Your task to perform on an android device: Play the last video I watched on Youtube Image 0: 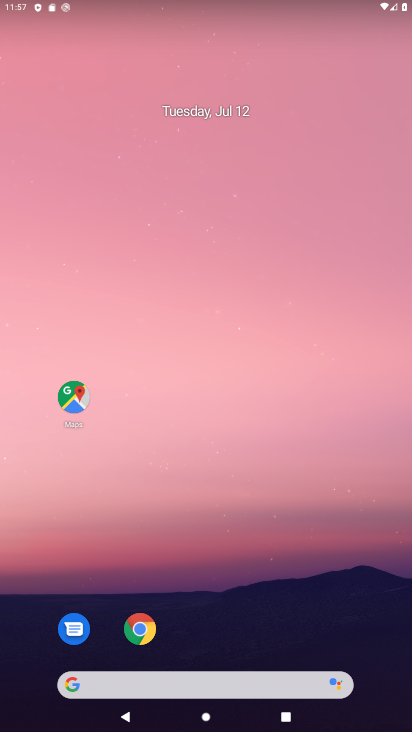
Step 0: drag from (231, 625) to (238, 174)
Your task to perform on an android device: Play the last video I watched on Youtube Image 1: 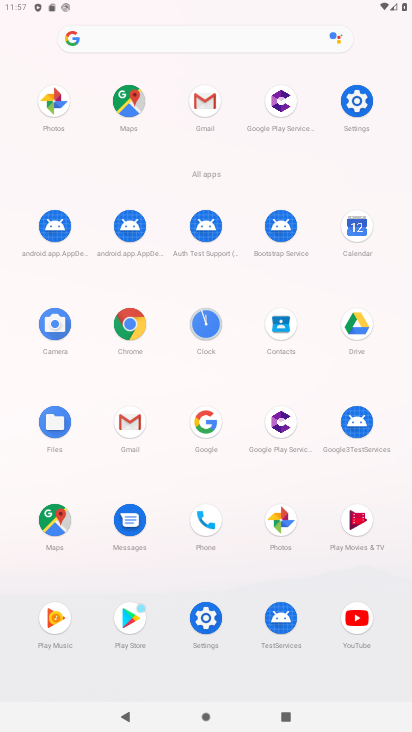
Step 1: click (361, 615)
Your task to perform on an android device: Play the last video I watched on Youtube Image 2: 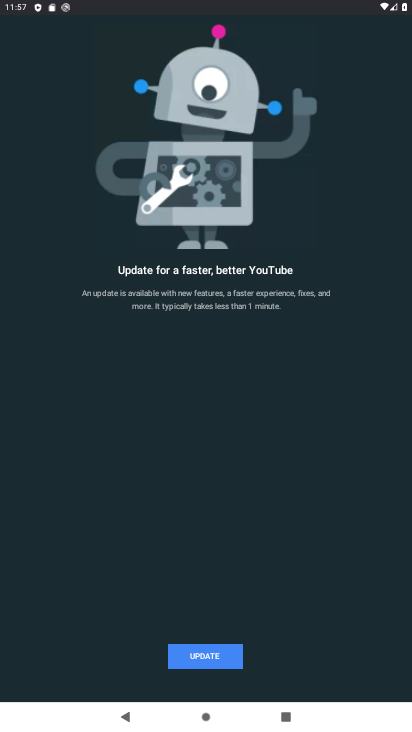
Step 2: click (207, 653)
Your task to perform on an android device: Play the last video I watched on Youtube Image 3: 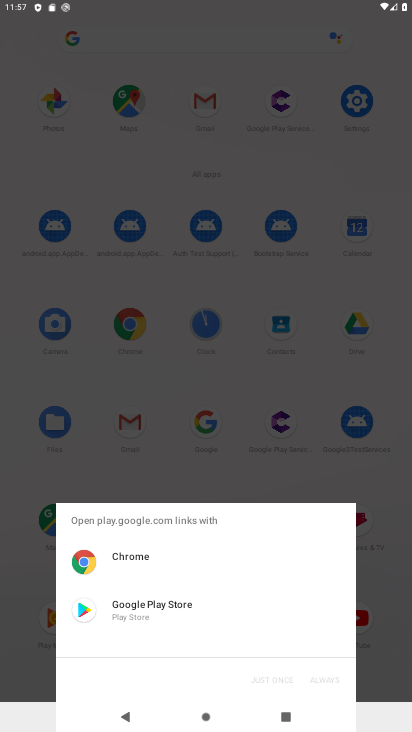
Step 3: click (187, 620)
Your task to perform on an android device: Play the last video I watched on Youtube Image 4: 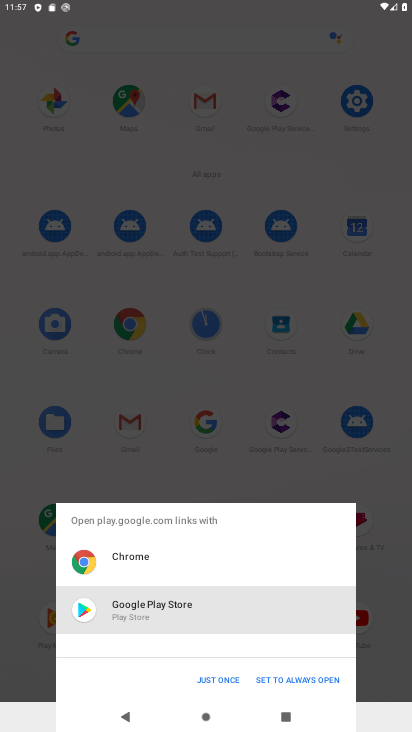
Step 4: click (295, 677)
Your task to perform on an android device: Play the last video I watched on Youtube Image 5: 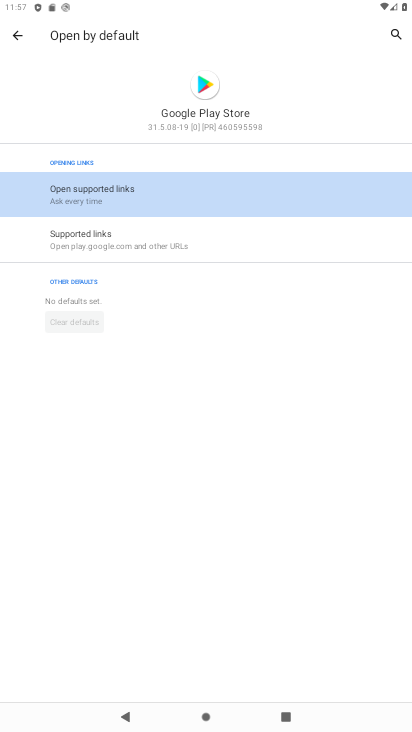
Step 5: click (143, 194)
Your task to perform on an android device: Play the last video I watched on Youtube Image 6: 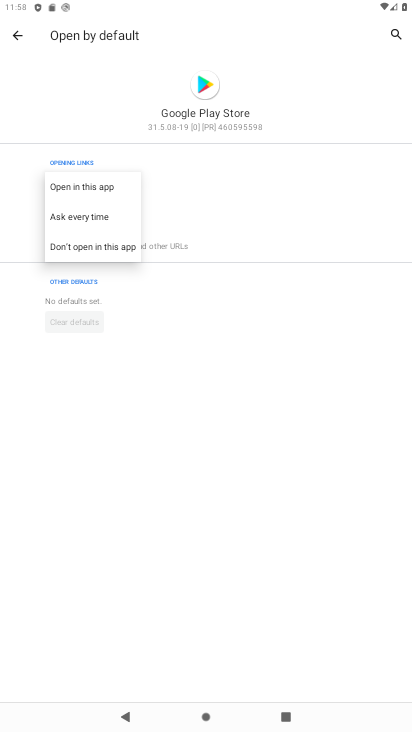
Step 6: click (91, 179)
Your task to perform on an android device: Play the last video I watched on Youtube Image 7: 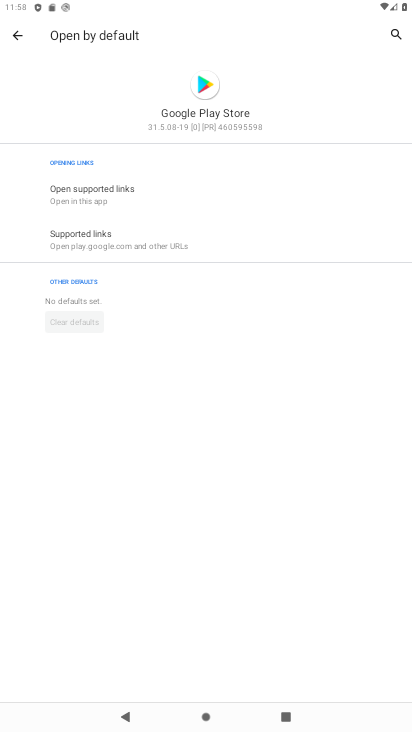
Step 7: click (19, 35)
Your task to perform on an android device: Play the last video I watched on Youtube Image 8: 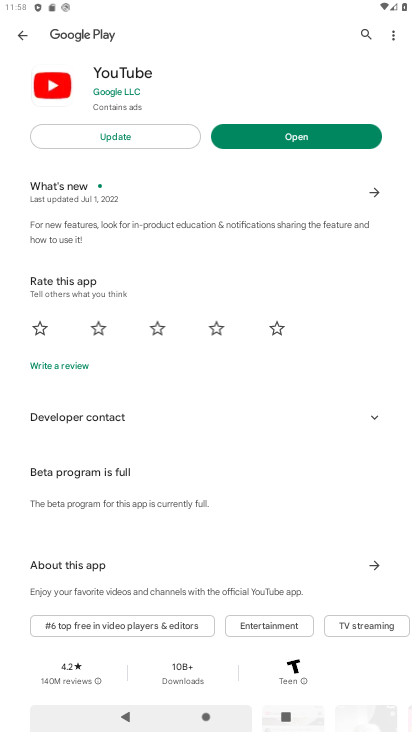
Step 8: click (65, 123)
Your task to perform on an android device: Play the last video I watched on Youtube Image 9: 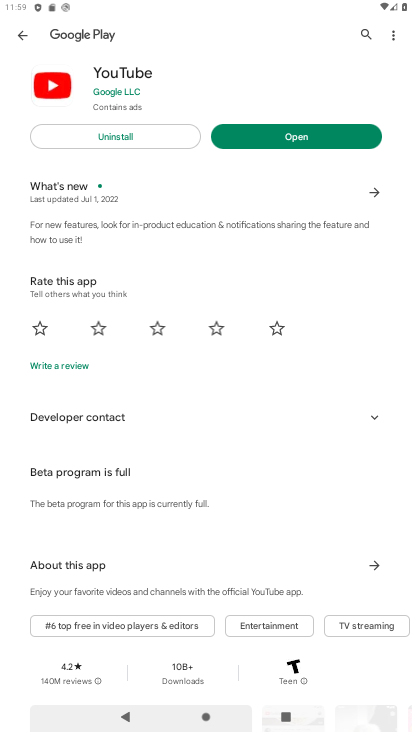
Step 9: click (292, 135)
Your task to perform on an android device: Play the last video I watched on Youtube Image 10: 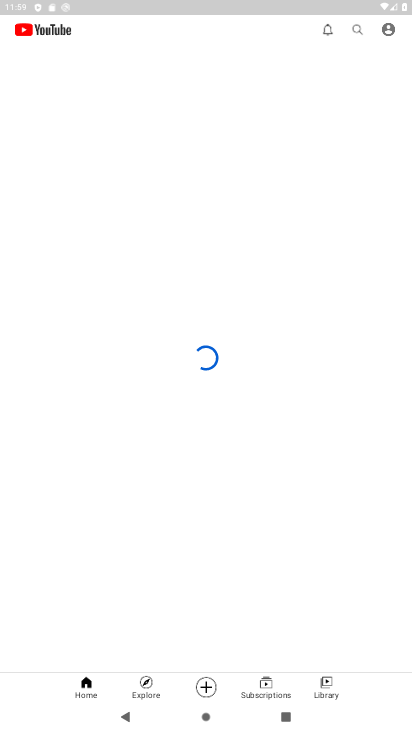
Step 10: click (289, 684)
Your task to perform on an android device: Play the last video I watched on Youtube Image 11: 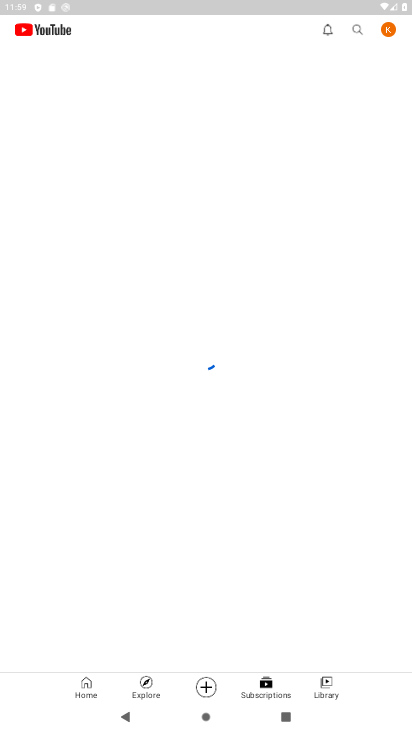
Step 11: click (339, 691)
Your task to perform on an android device: Play the last video I watched on Youtube Image 12: 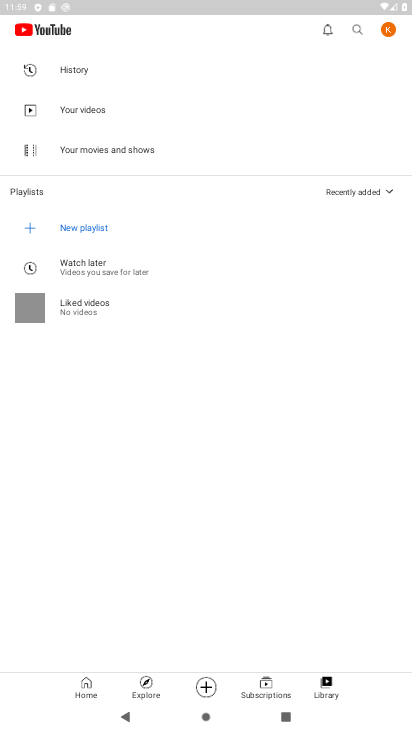
Step 12: click (84, 75)
Your task to perform on an android device: Play the last video I watched on Youtube Image 13: 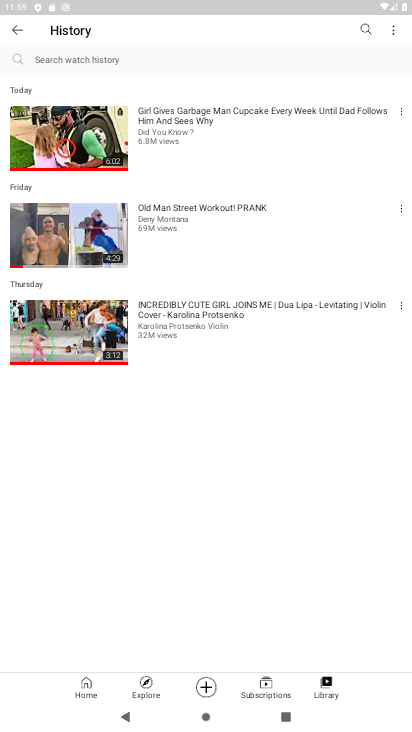
Step 13: task complete